Your task to perform on an android device: change the clock display to digital Image 0: 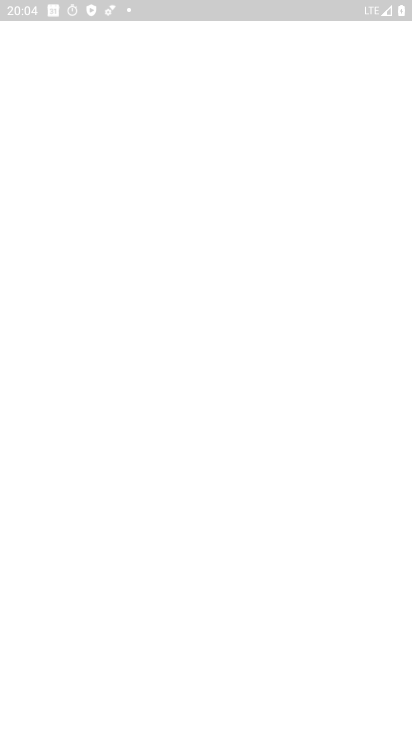
Step 0: click (225, 650)
Your task to perform on an android device: change the clock display to digital Image 1: 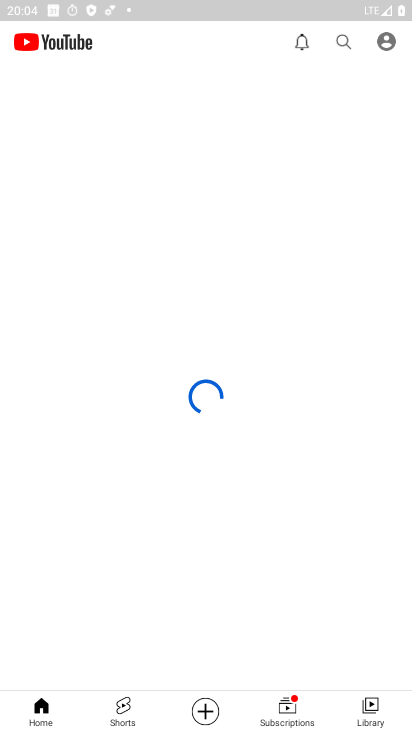
Step 1: press home button
Your task to perform on an android device: change the clock display to digital Image 2: 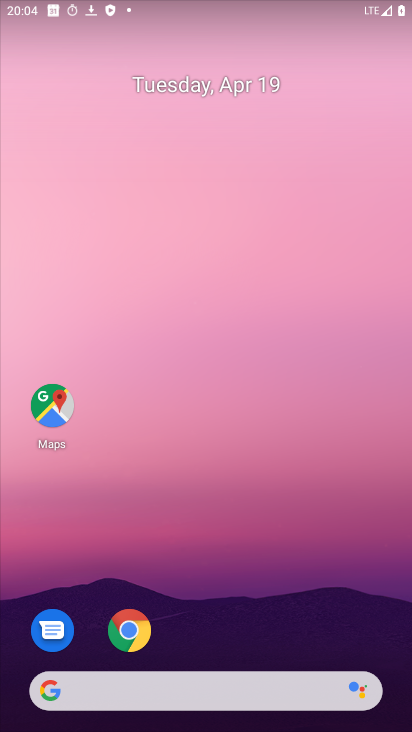
Step 2: drag from (254, 647) to (245, 141)
Your task to perform on an android device: change the clock display to digital Image 3: 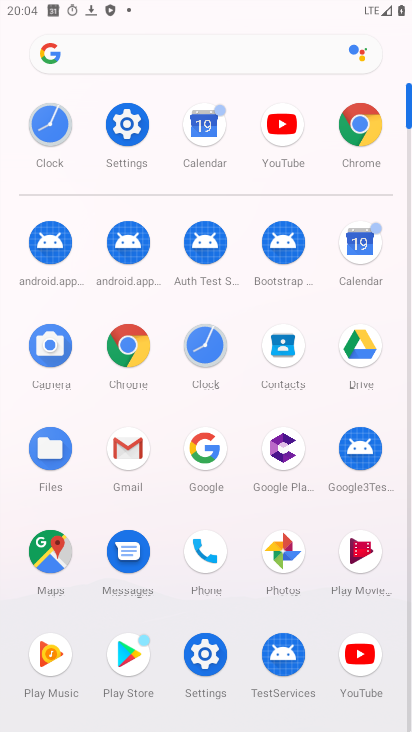
Step 3: click (208, 349)
Your task to perform on an android device: change the clock display to digital Image 4: 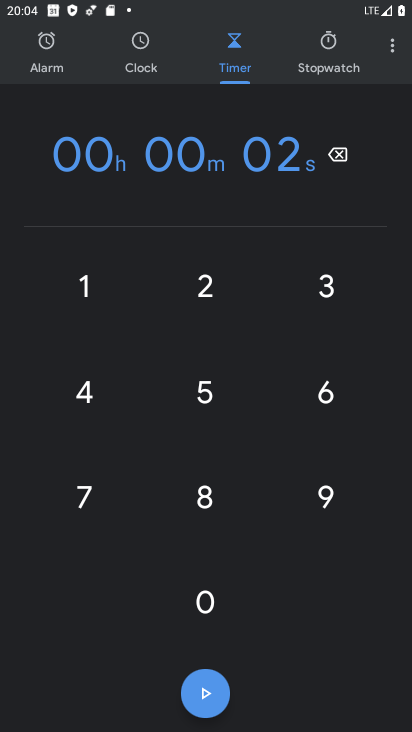
Step 4: click (386, 42)
Your task to perform on an android device: change the clock display to digital Image 5: 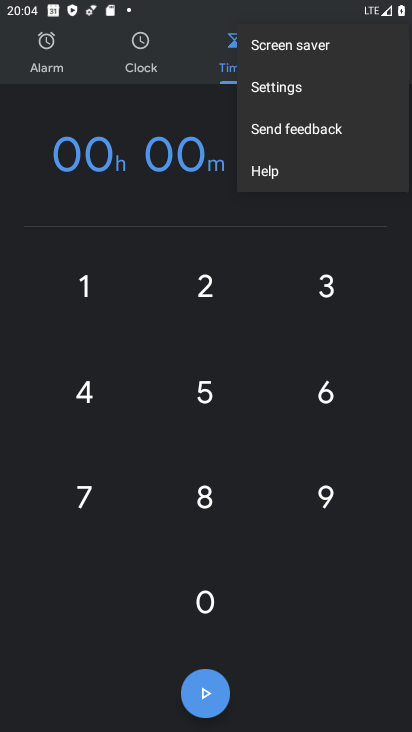
Step 5: click (300, 85)
Your task to perform on an android device: change the clock display to digital Image 6: 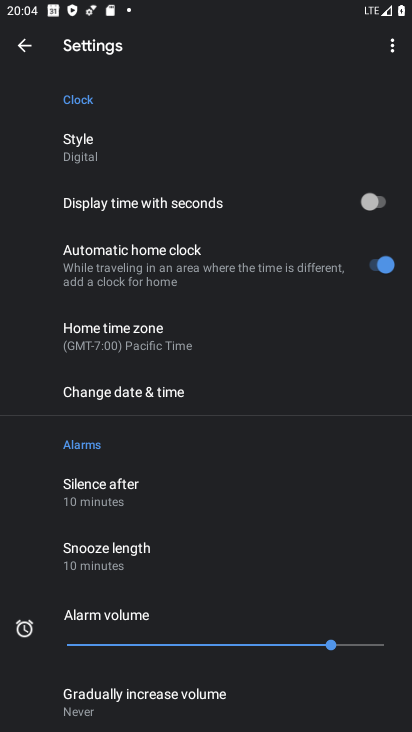
Step 6: click (107, 136)
Your task to perform on an android device: change the clock display to digital Image 7: 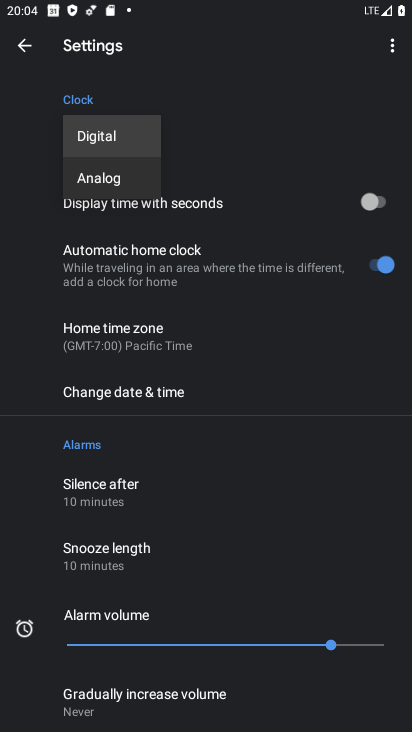
Step 7: task complete